Your task to perform on an android device: Go to wifi settings Image 0: 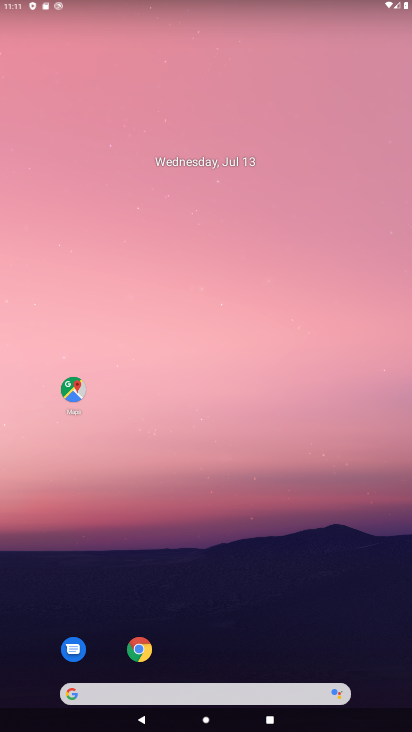
Step 0: drag from (207, 652) to (226, 184)
Your task to perform on an android device: Go to wifi settings Image 1: 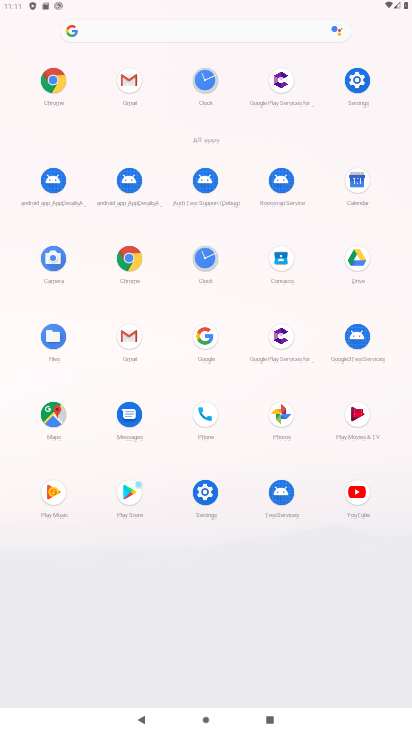
Step 1: click (208, 498)
Your task to perform on an android device: Go to wifi settings Image 2: 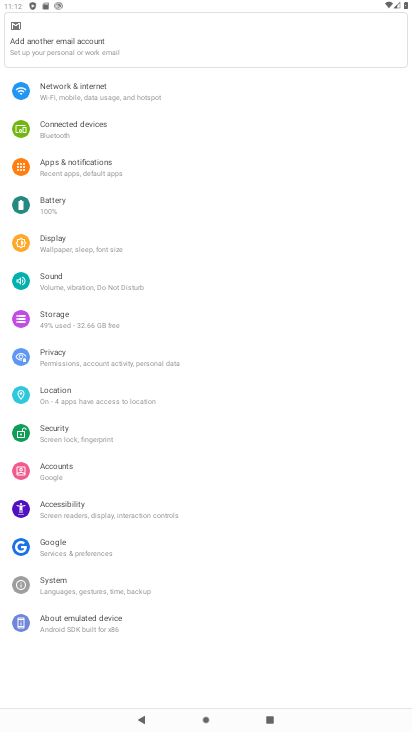
Step 2: click (119, 99)
Your task to perform on an android device: Go to wifi settings Image 3: 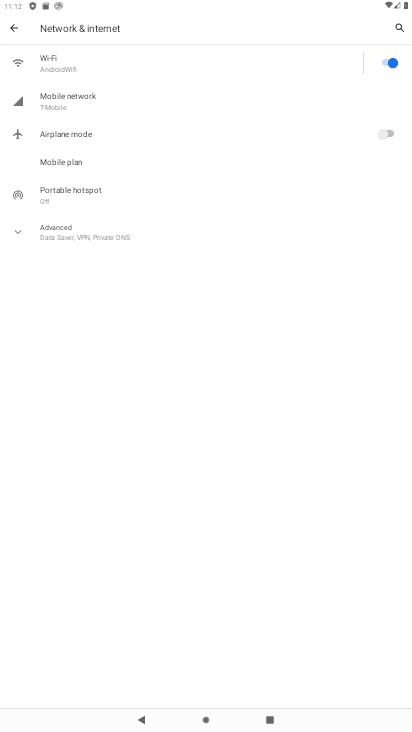
Step 3: click (80, 64)
Your task to perform on an android device: Go to wifi settings Image 4: 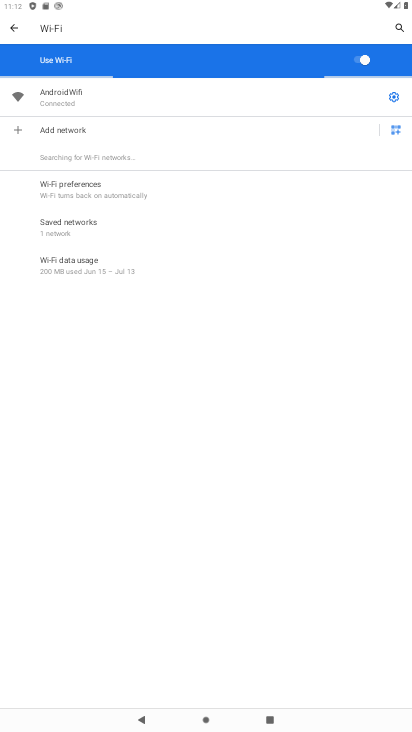
Step 4: task complete